Your task to perform on an android device: turn off sleep mode Image 0: 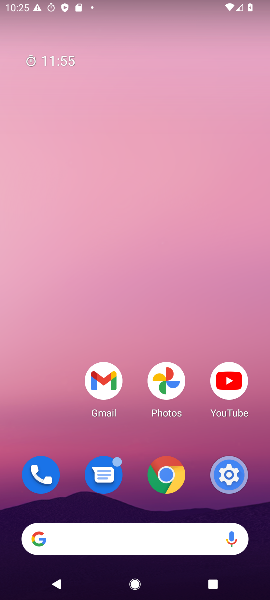
Step 0: drag from (121, 183) to (138, 50)
Your task to perform on an android device: turn off sleep mode Image 1: 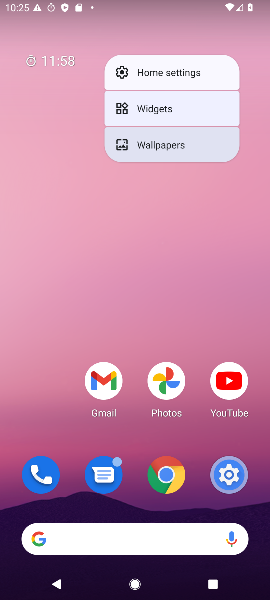
Step 1: click (174, 245)
Your task to perform on an android device: turn off sleep mode Image 2: 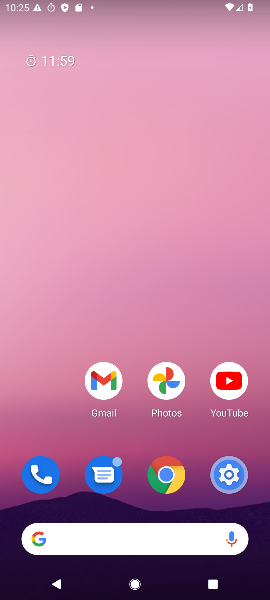
Step 2: click (231, 484)
Your task to perform on an android device: turn off sleep mode Image 3: 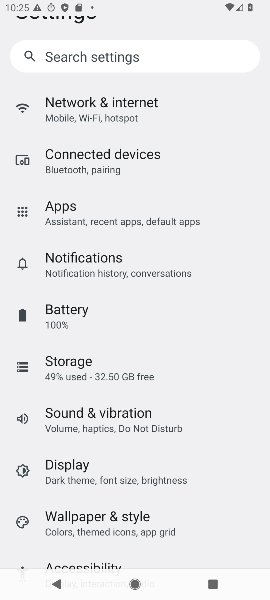
Step 3: click (130, 51)
Your task to perform on an android device: turn off sleep mode Image 4: 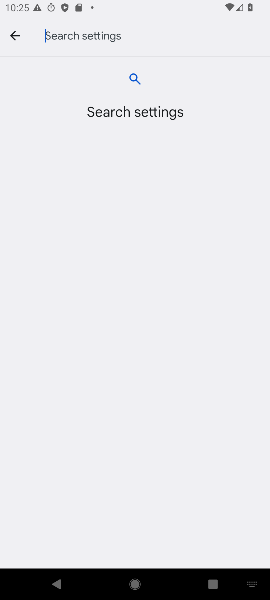
Step 4: type "sleep mode"
Your task to perform on an android device: turn off sleep mode Image 5: 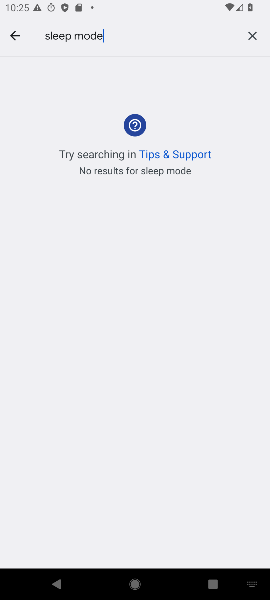
Step 5: task complete